Your task to perform on an android device: Check the weather Image 0: 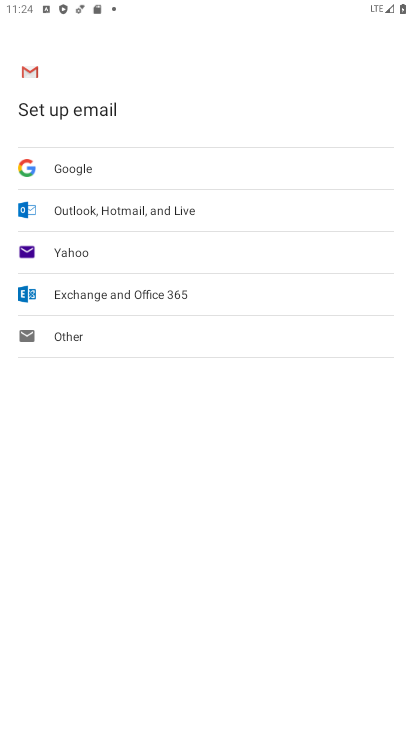
Step 0: press home button
Your task to perform on an android device: Check the weather Image 1: 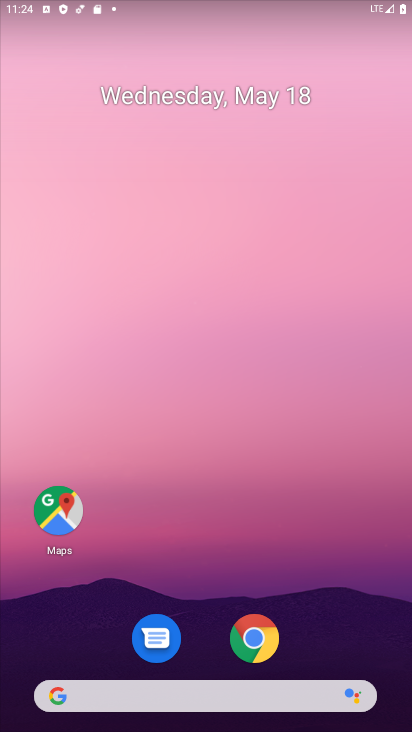
Step 1: drag from (385, 643) to (298, 97)
Your task to perform on an android device: Check the weather Image 2: 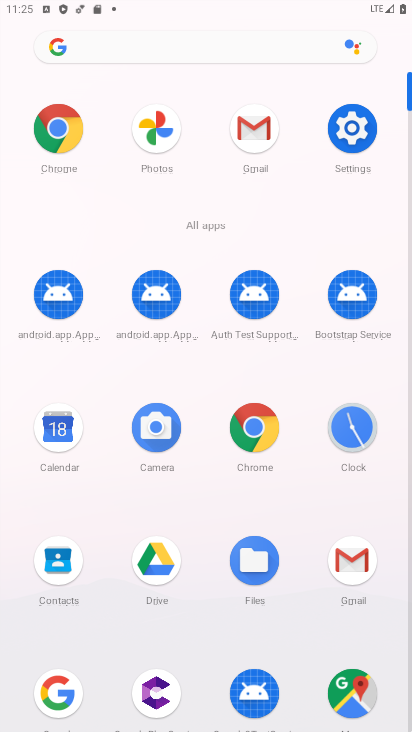
Step 2: click (62, 694)
Your task to perform on an android device: Check the weather Image 3: 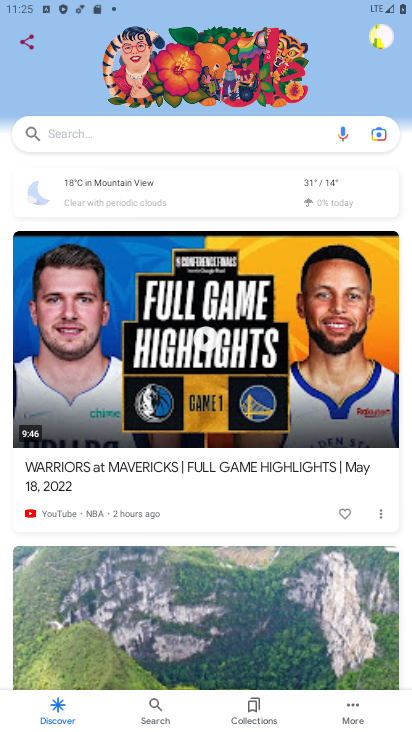
Step 3: click (119, 137)
Your task to perform on an android device: Check the weather Image 4: 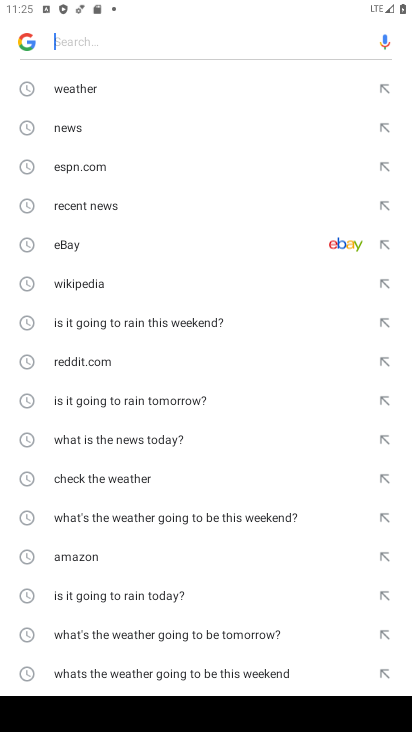
Step 4: click (124, 78)
Your task to perform on an android device: Check the weather Image 5: 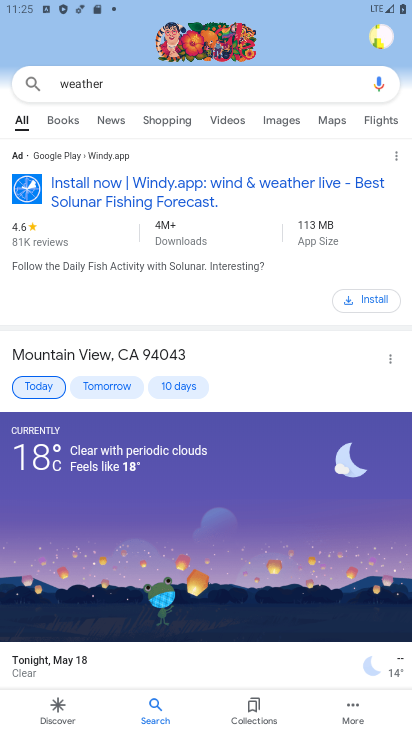
Step 5: task complete